Your task to perform on an android device: Open Android settings Image 0: 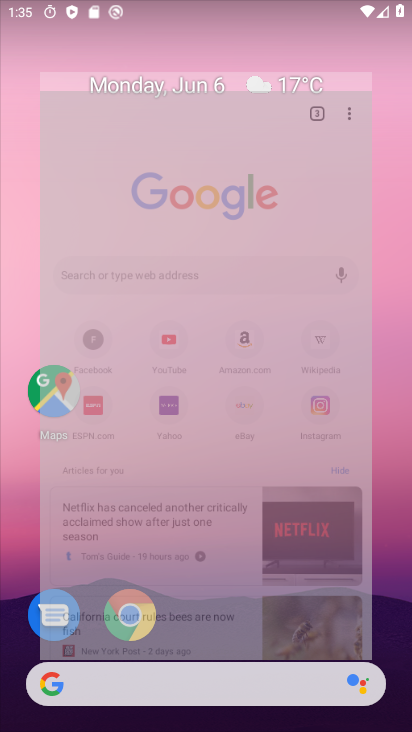
Step 0: drag from (98, 446) to (148, 91)
Your task to perform on an android device: Open Android settings Image 1: 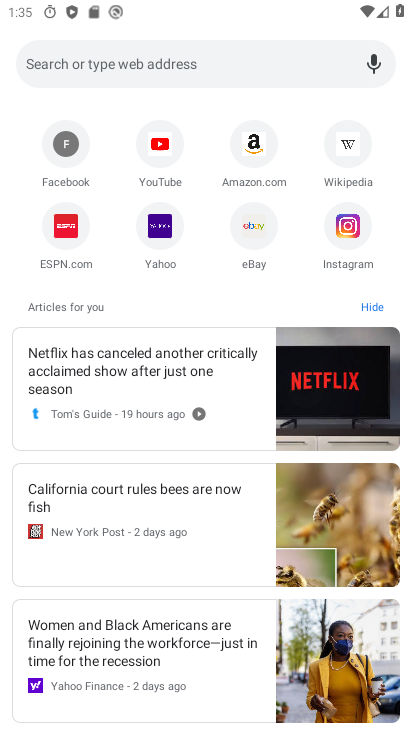
Step 1: press home button
Your task to perform on an android device: Open Android settings Image 2: 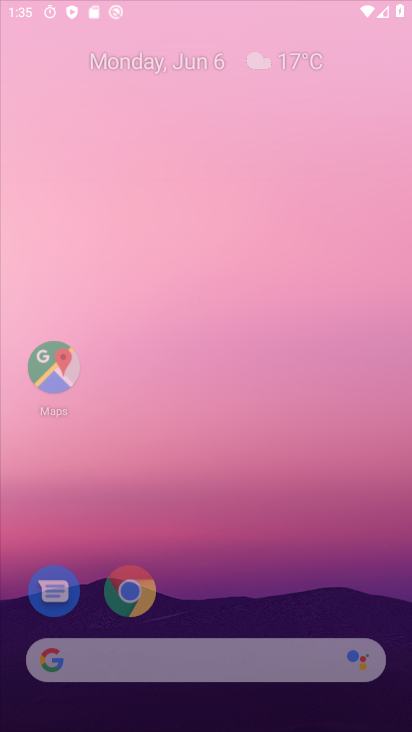
Step 2: drag from (186, 626) to (238, 36)
Your task to perform on an android device: Open Android settings Image 3: 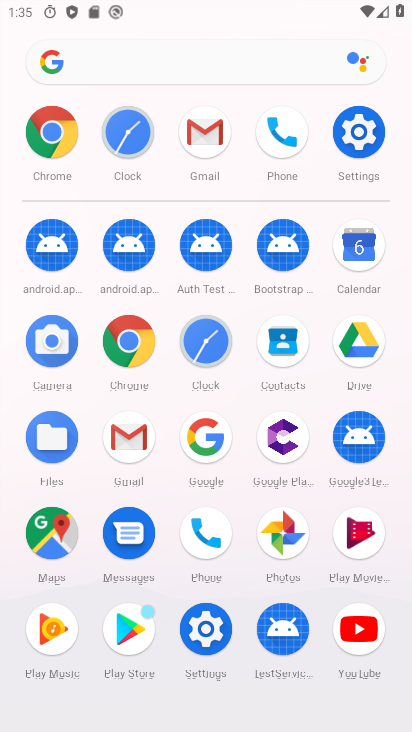
Step 3: click (341, 145)
Your task to perform on an android device: Open Android settings Image 4: 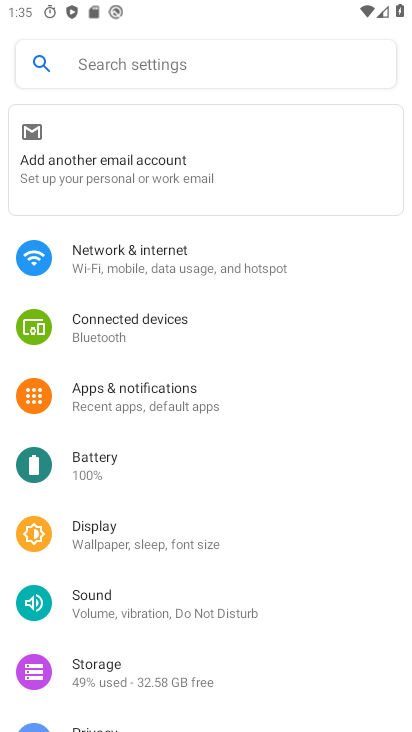
Step 4: drag from (201, 620) to (245, 18)
Your task to perform on an android device: Open Android settings Image 5: 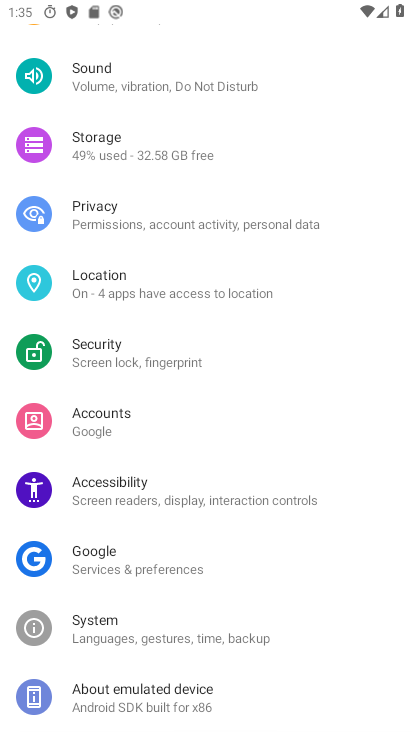
Step 5: drag from (204, 637) to (171, 96)
Your task to perform on an android device: Open Android settings Image 6: 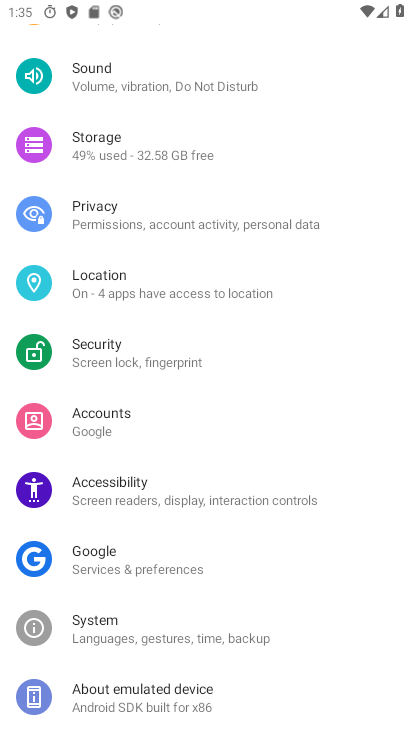
Step 6: click (221, 688)
Your task to perform on an android device: Open Android settings Image 7: 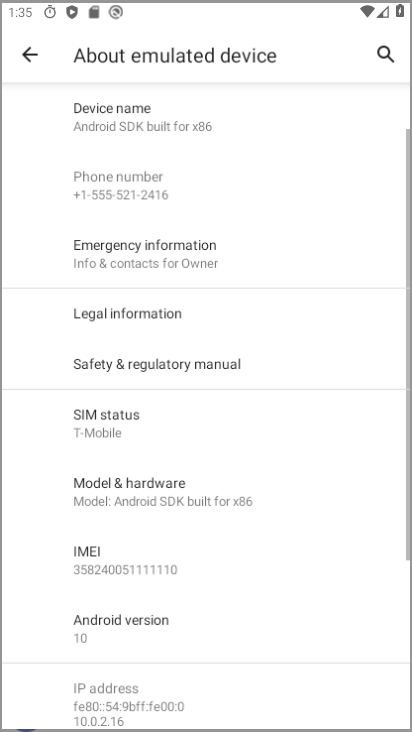
Step 7: drag from (221, 688) to (315, 77)
Your task to perform on an android device: Open Android settings Image 8: 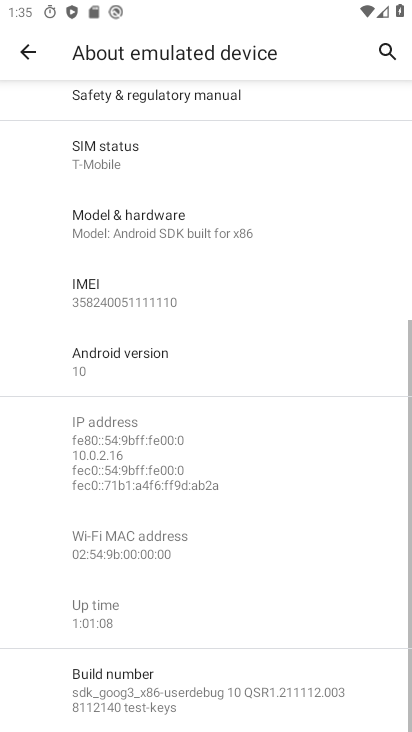
Step 8: click (164, 360)
Your task to perform on an android device: Open Android settings Image 9: 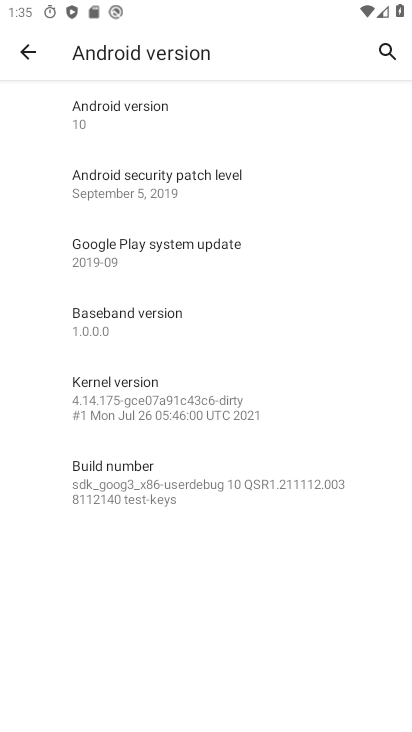
Step 9: drag from (228, 529) to (255, 97)
Your task to perform on an android device: Open Android settings Image 10: 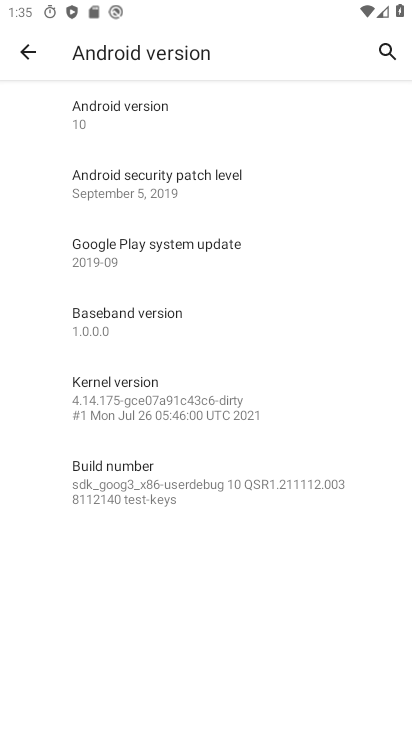
Step 10: click (194, 108)
Your task to perform on an android device: Open Android settings Image 11: 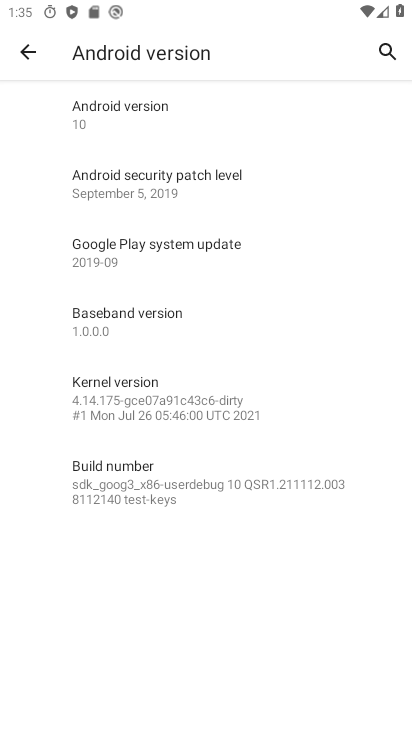
Step 11: task complete